Your task to perform on an android device: toggle priority inbox in the gmail app Image 0: 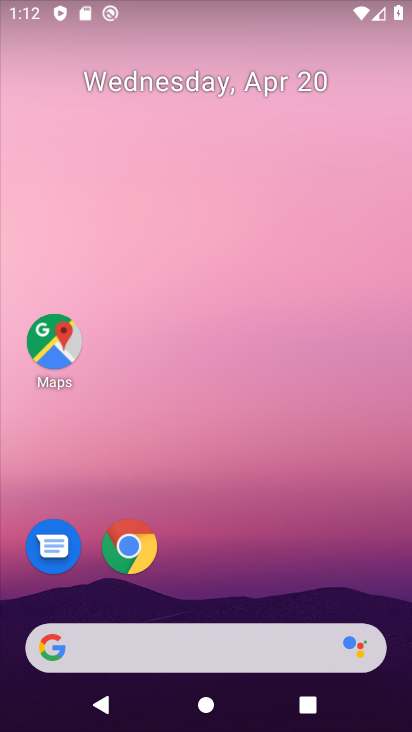
Step 0: drag from (146, 599) to (350, 73)
Your task to perform on an android device: toggle priority inbox in the gmail app Image 1: 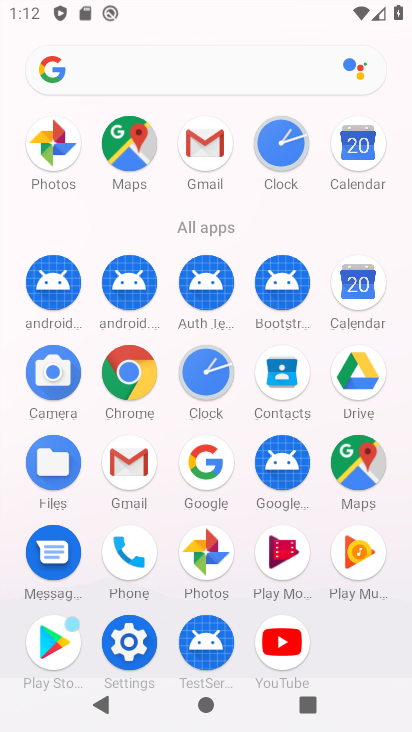
Step 1: click (136, 460)
Your task to perform on an android device: toggle priority inbox in the gmail app Image 2: 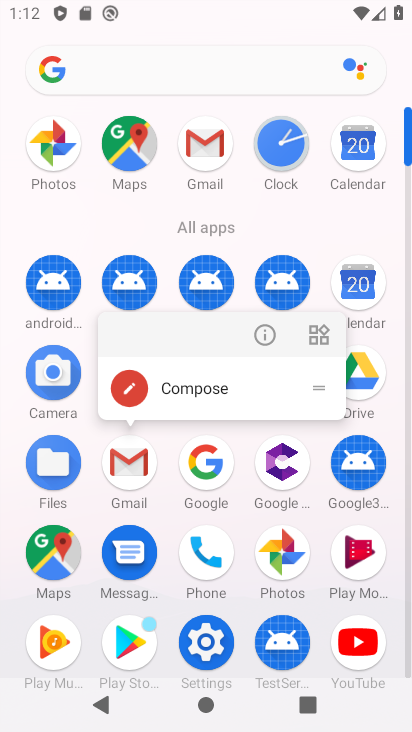
Step 2: click (112, 457)
Your task to perform on an android device: toggle priority inbox in the gmail app Image 3: 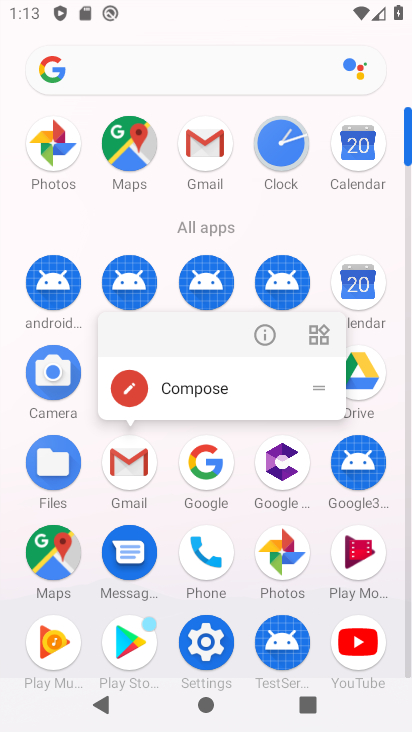
Step 3: click (128, 472)
Your task to perform on an android device: toggle priority inbox in the gmail app Image 4: 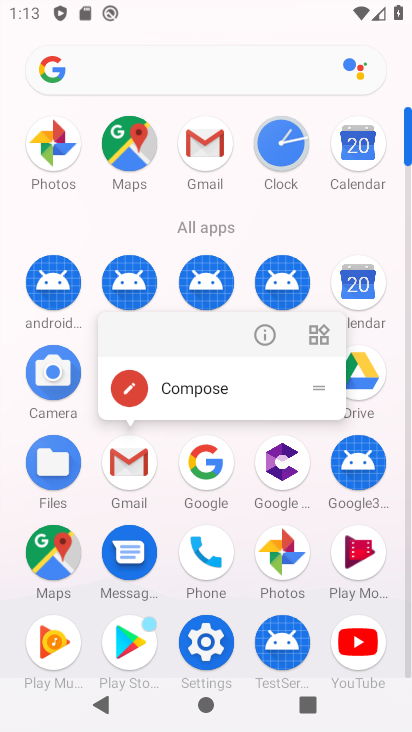
Step 4: click (134, 478)
Your task to perform on an android device: toggle priority inbox in the gmail app Image 5: 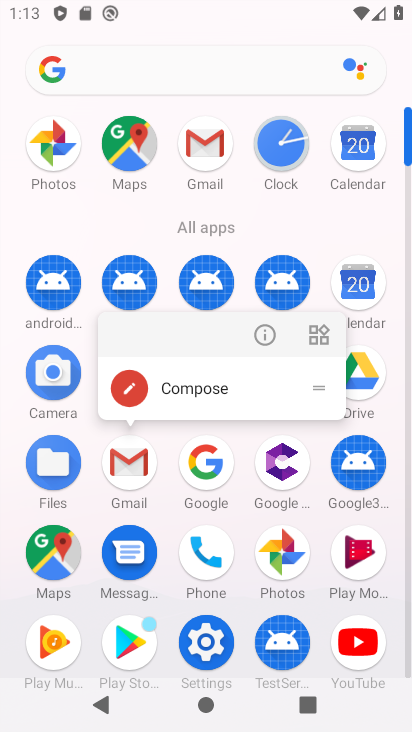
Step 5: click (133, 459)
Your task to perform on an android device: toggle priority inbox in the gmail app Image 6: 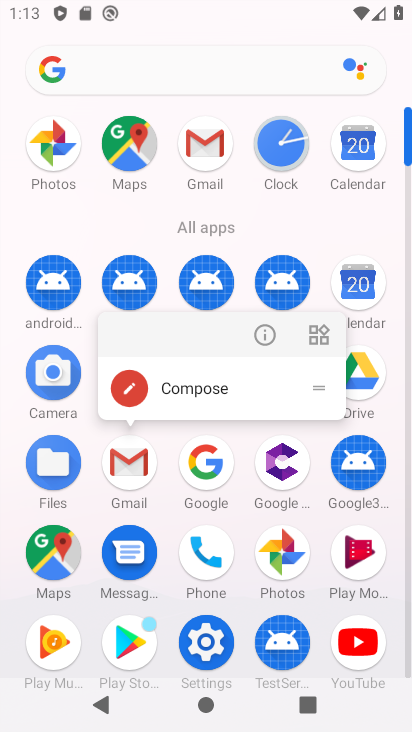
Step 6: click (139, 483)
Your task to perform on an android device: toggle priority inbox in the gmail app Image 7: 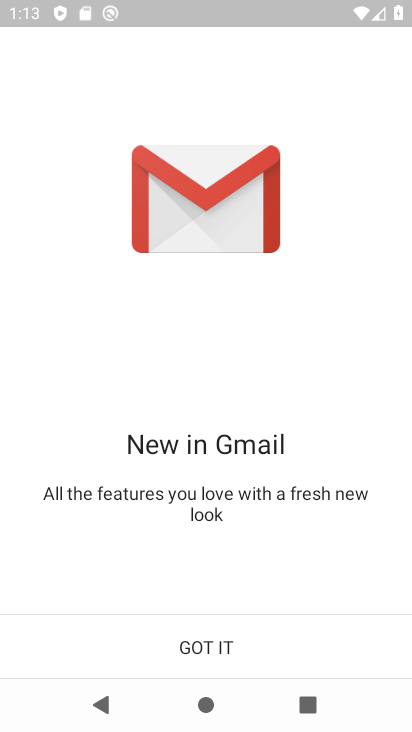
Step 7: click (207, 661)
Your task to perform on an android device: toggle priority inbox in the gmail app Image 8: 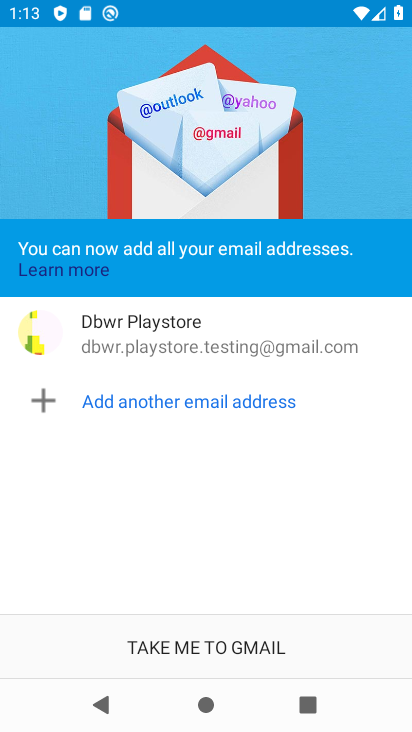
Step 8: click (215, 649)
Your task to perform on an android device: toggle priority inbox in the gmail app Image 9: 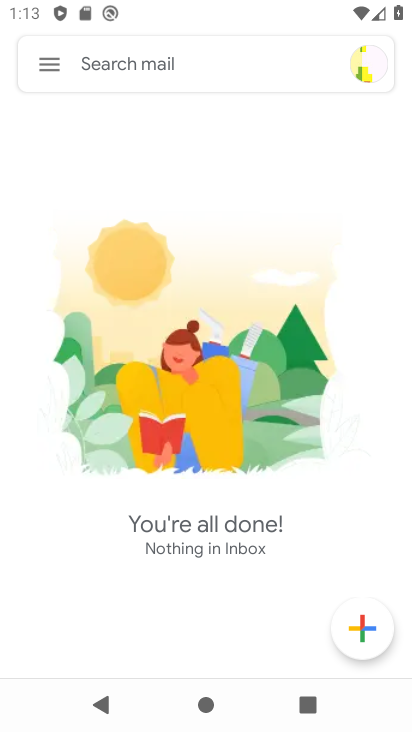
Step 9: click (45, 53)
Your task to perform on an android device: toggle priority inbox in the gmail app Image 10: 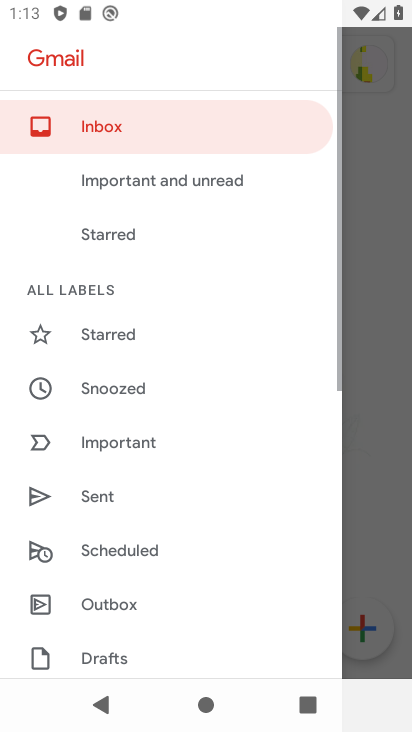
Step 10: drag from (189, 466) to (264, 188)
Your task to perform on an android device: toggle priority inbox in the gmail app Image 11: 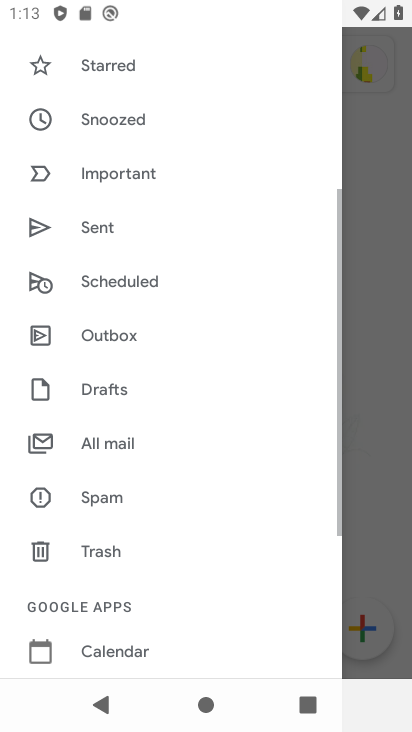
Step 11: drag from (133, 574) to (262, 228)
Your task to perform on an android device: toggle priority inbox in the gmail app Image 12: 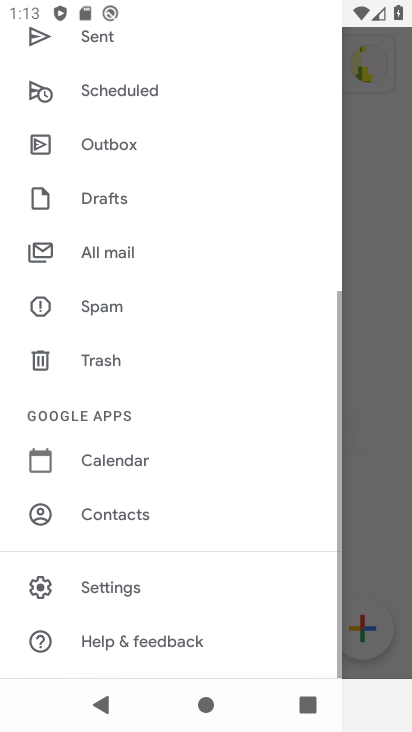
Step 12: click (127, 592)
Your task to perform on an android device: toggle priority inbox in the gmail app Image 13: 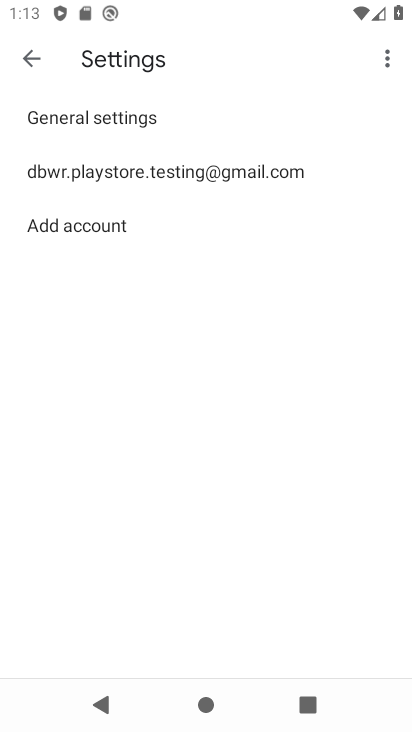
Step 13: click (270, 176)
Your task to perform on an android device: toggle priority inbox in the gmail app Image 14: 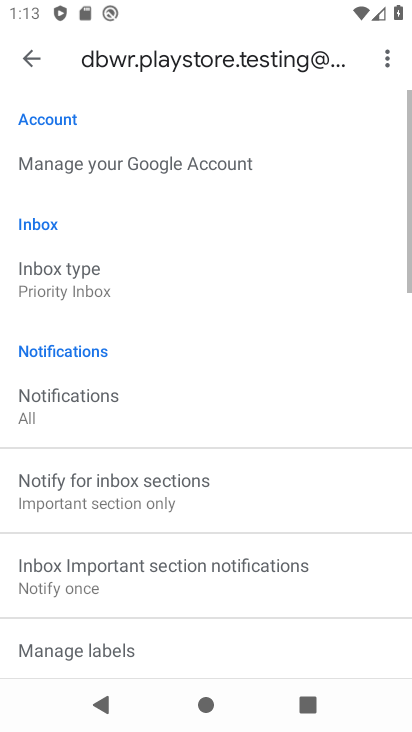
Step 14: drag from (117, 571) to (266, 129)
Your task to perform on an android device: toggle priority inbox in the gmail app Image 15: 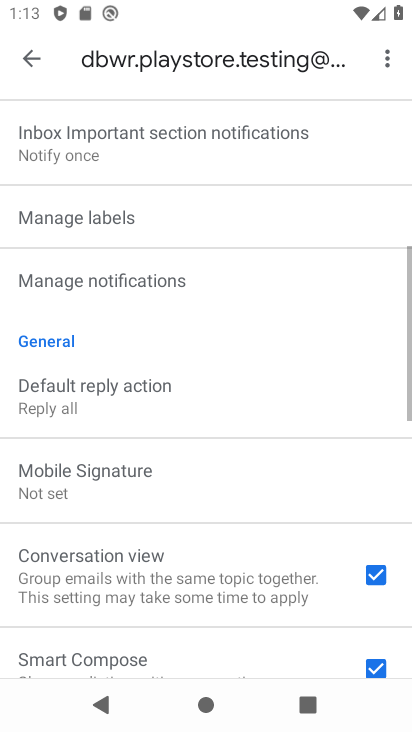
Step 15: drag from (209, 566) to (188, 615)
Your task to perform on an android device: toggle priority inbox in the gmail app Image 16: 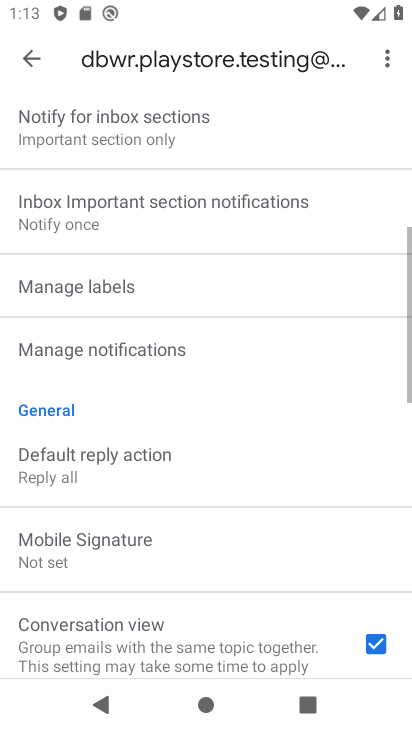
Step 16: drag from (210, 251) to (174, 568)
Your task to perform on an android device: toggle priority inbox in the gmail app Image 17: 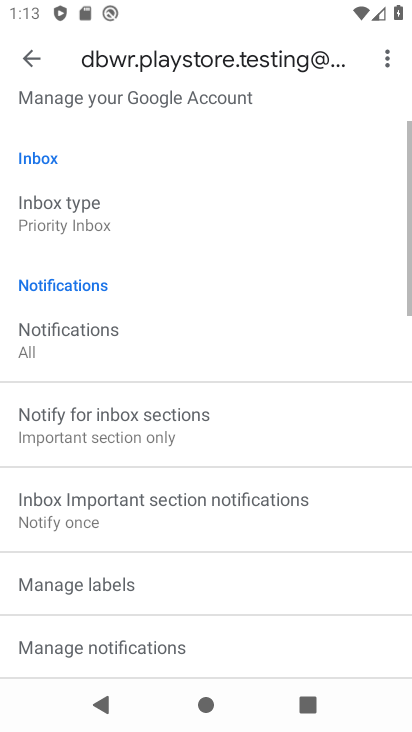
Step 17: click (126, 218)
Your task to perform on an android device: toggle priority inbox in the gmail app Image 18: 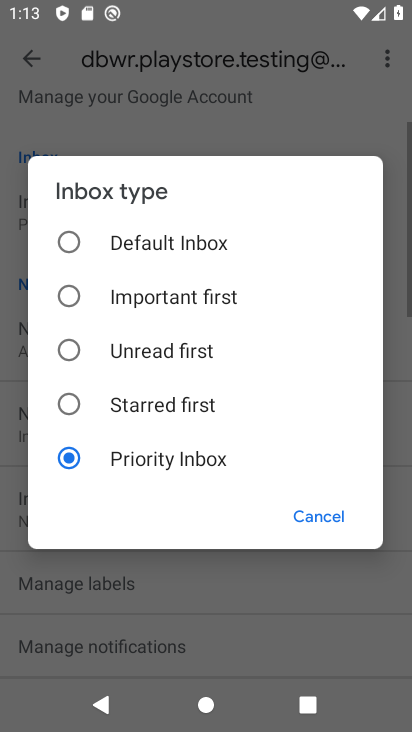
Step 18: click (165, 311)
Your task to perform on an android device: toggle priority inbox in the gmail app Image 19: 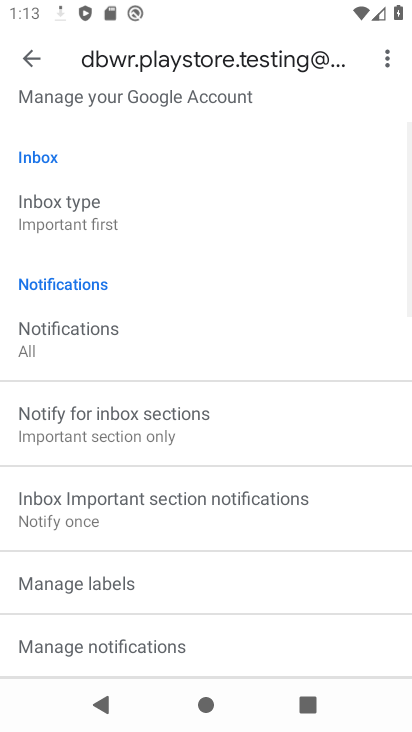
Step 19: task complete